Your task to perform on an android device: toggle improve location accuracy Image 0: 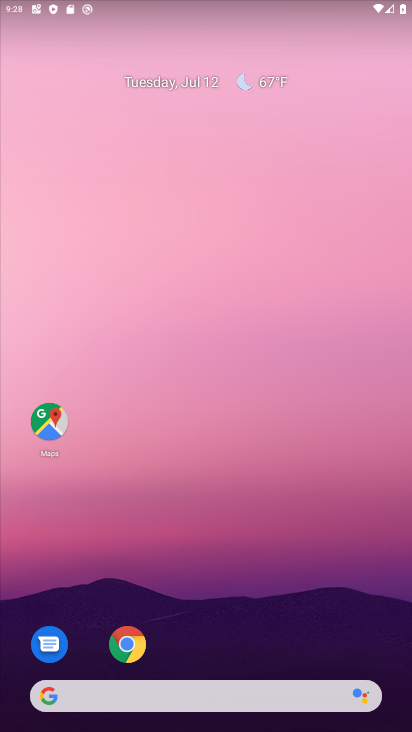
Step 0: drag from (173, 661) to (244, 181)
Your task to perform on an android device: toggle improve location accuracy Image 1: 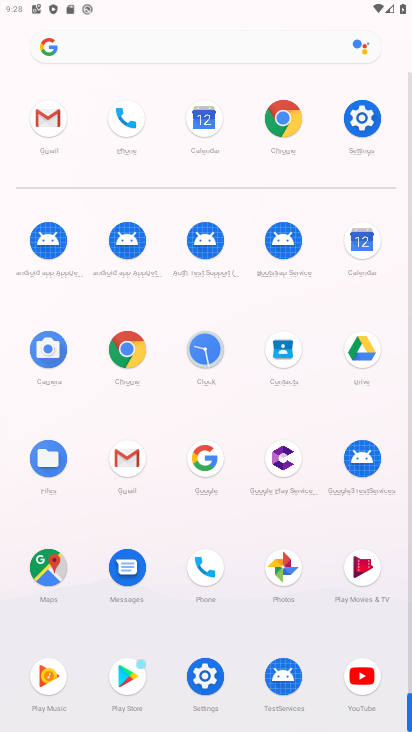
Step 1: click (354, 116)
Your task to perform on an android device: toggle improve location accuracy Image 2: 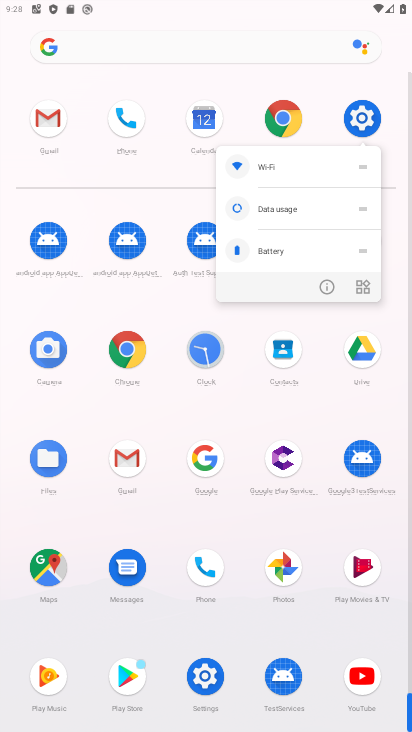
Step 2: click (325, 286)
Your task to perform on an android device: toggle improve location accuracy Image 3: 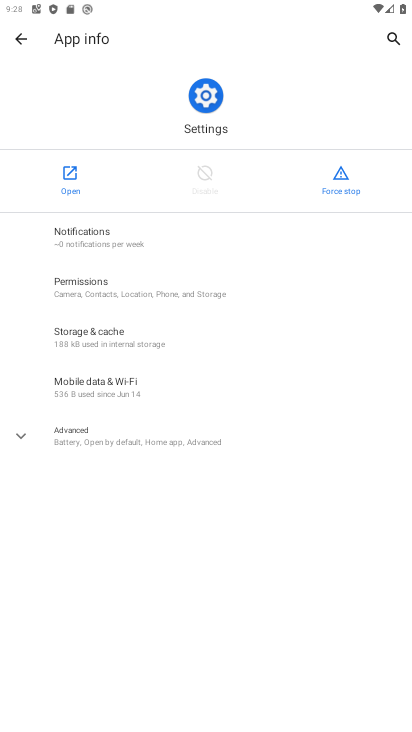
Step 3: click (68, 190)
Your task to perform on an android device: toggle improve location accuracy Image 4: 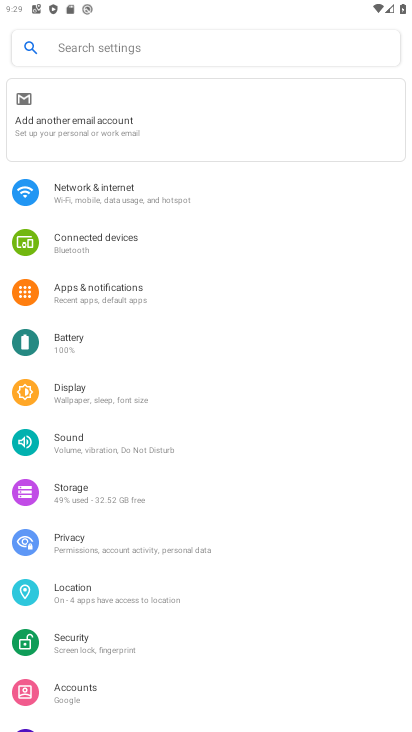
Step 4: click (97, 589)
Your task to perform on an android device: toggle improve location accuracy Image 5: 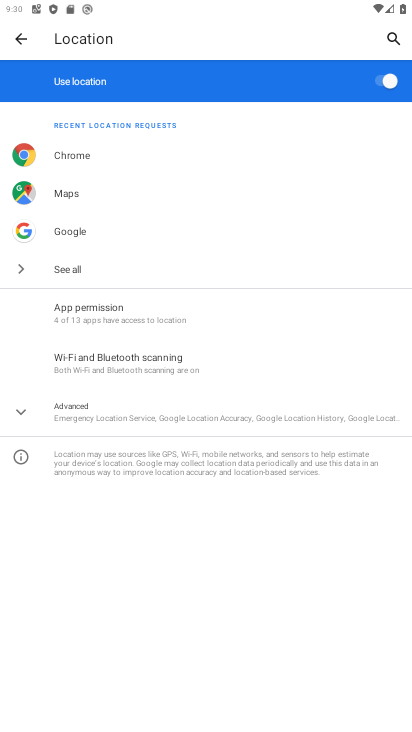
Step 5: click (77, 417)
Your task to perform on an android device: toggle improve location accuracy Image 6: 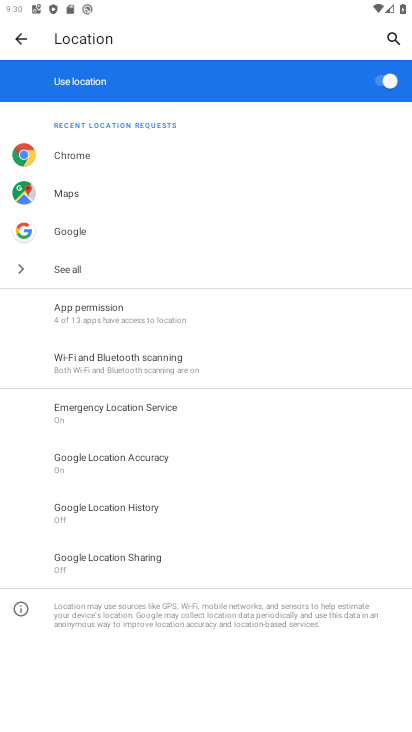
Step 6: click (163, 458)
Your task to perform on an android device: toggle improve location accuracy Image 7: 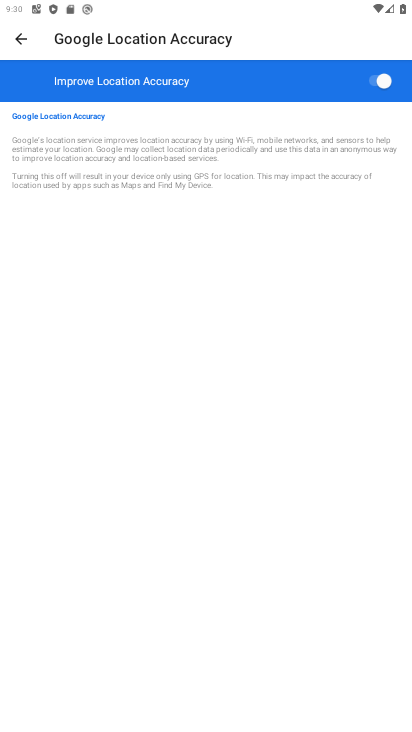
Step 7: click (375, 84)
Your task to perform on an android device: toggle improve location accuracy Image 8: 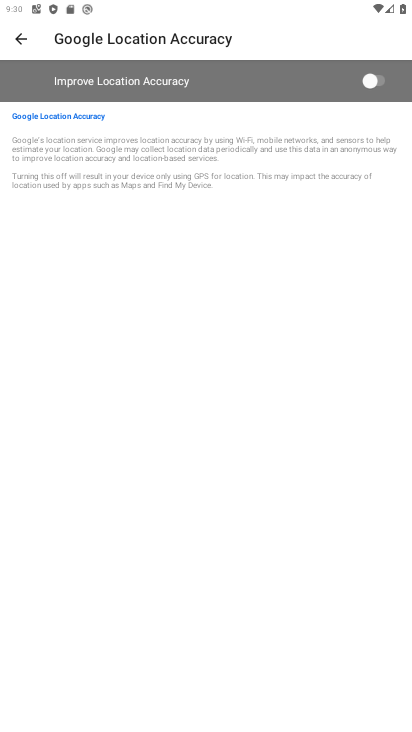
Step 8: task complete